Your task to perform on an android device: turn on the 12-hour format for clock Image 0: 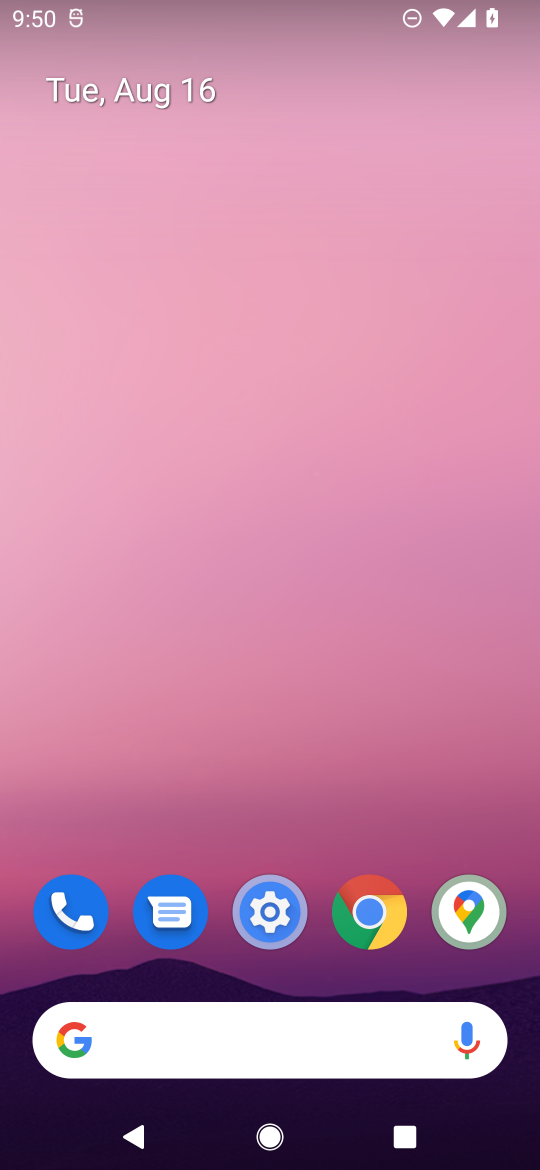
Step 0: drag from (251, 834) to (262, 53)
Your task to perform on an android device: turn on the 12-hour format for clock Image 1: 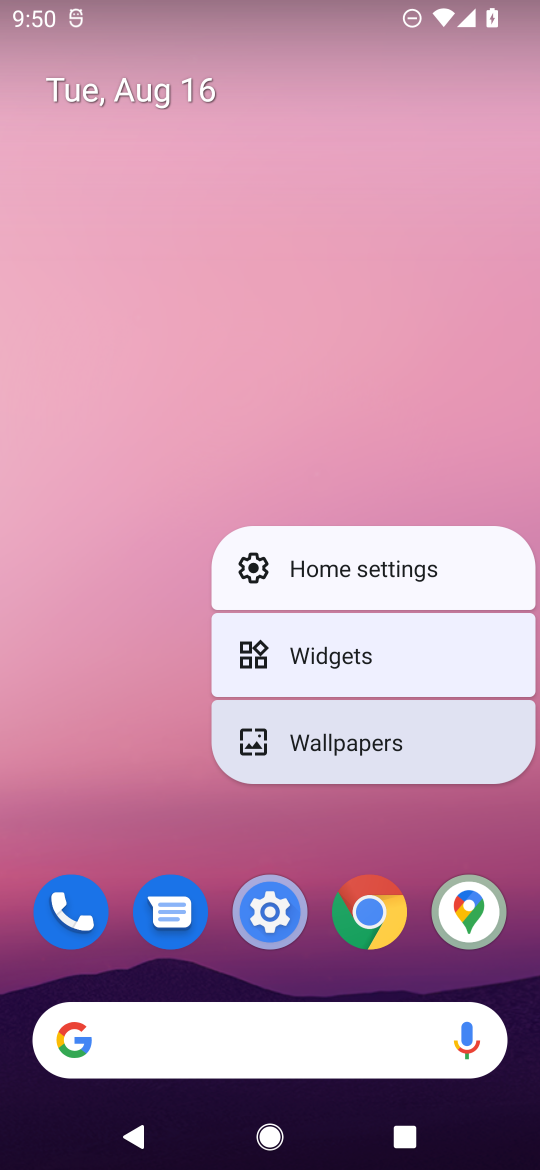
Step 1: drag from (217, 984) to (251, 183)
Your task to perform on an android device: turn on the 12-hour format for clock Image 2: 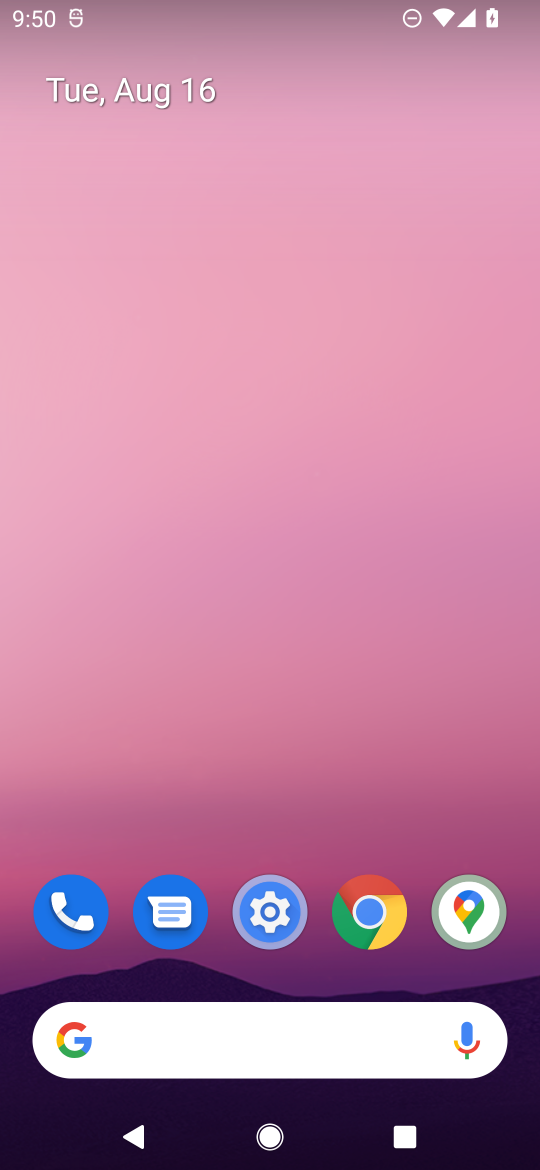
Step 2: drag from (331, 986) to (255, 233)
Your task to perform on an android device: turn on the 12-hour format for clock Image 3: 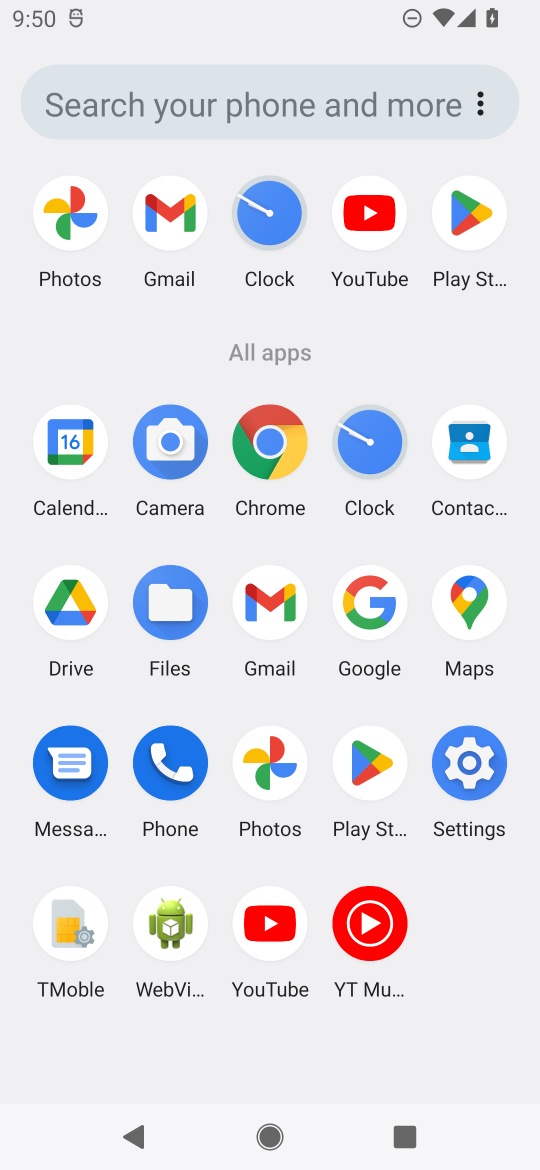
Step 3: click (369, 456)
Your task to perform on an android device: turn on the 12-hour format for clock Image 4: 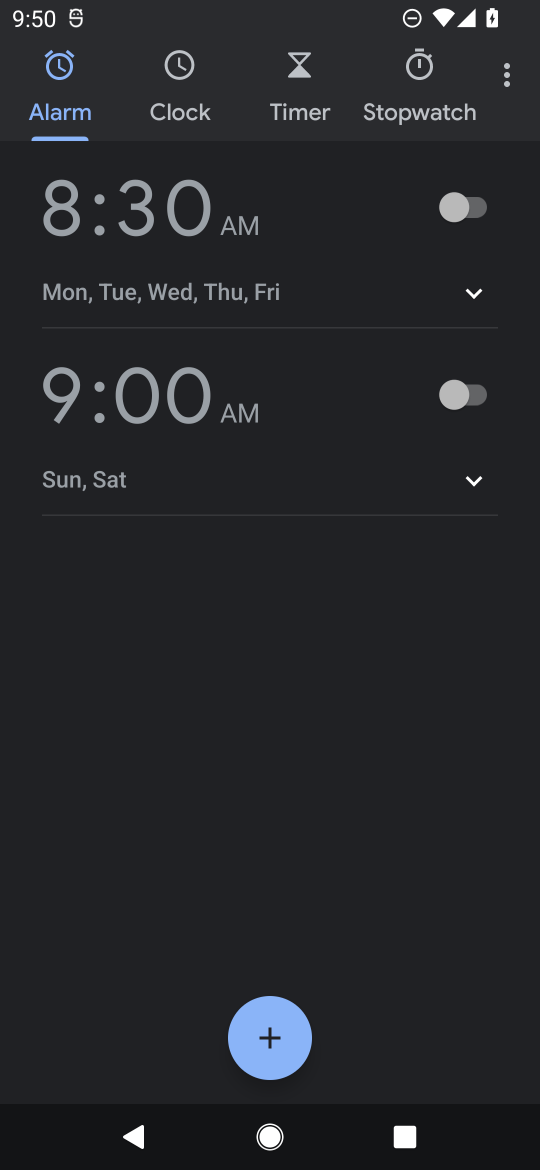
Step 4: click (507, 78)
Your task to perform on an android device: turn on the 12-hour format for clock Image 5: 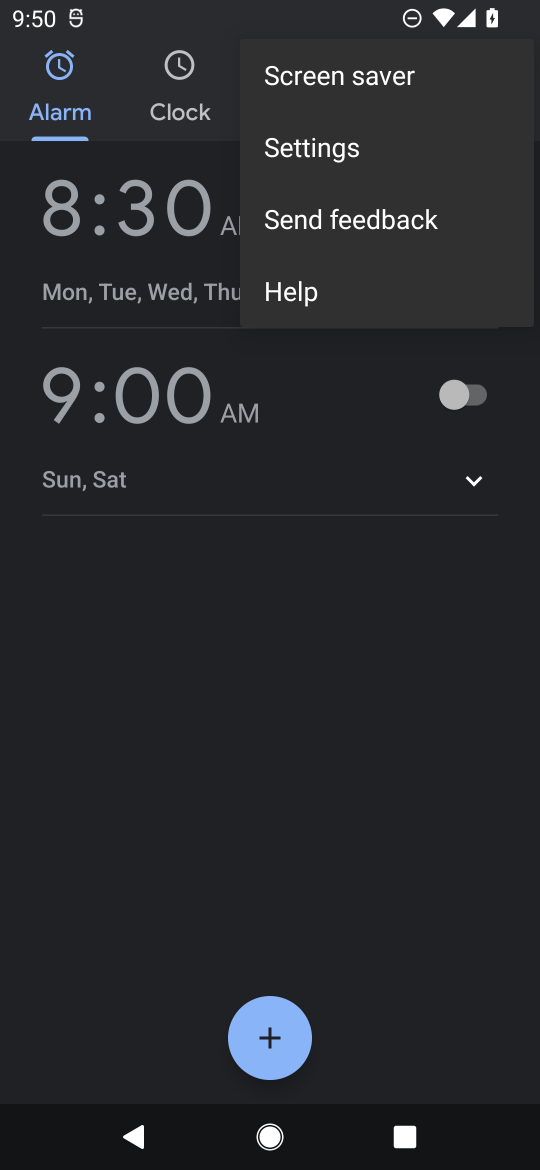
Step 5: click (396, 148)
Your task to perform on an android device: turn on the 12-hour format for clock Image 6: 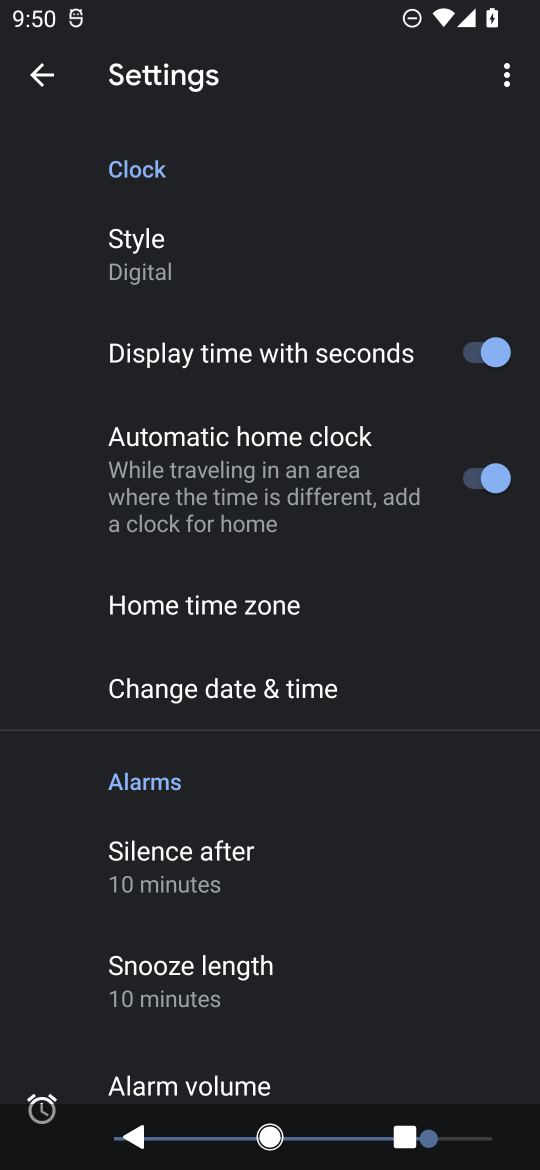
Step 6: click (204, 679)
Your task to perform on an android device: turn on the 12-hour format for clock Image 7: 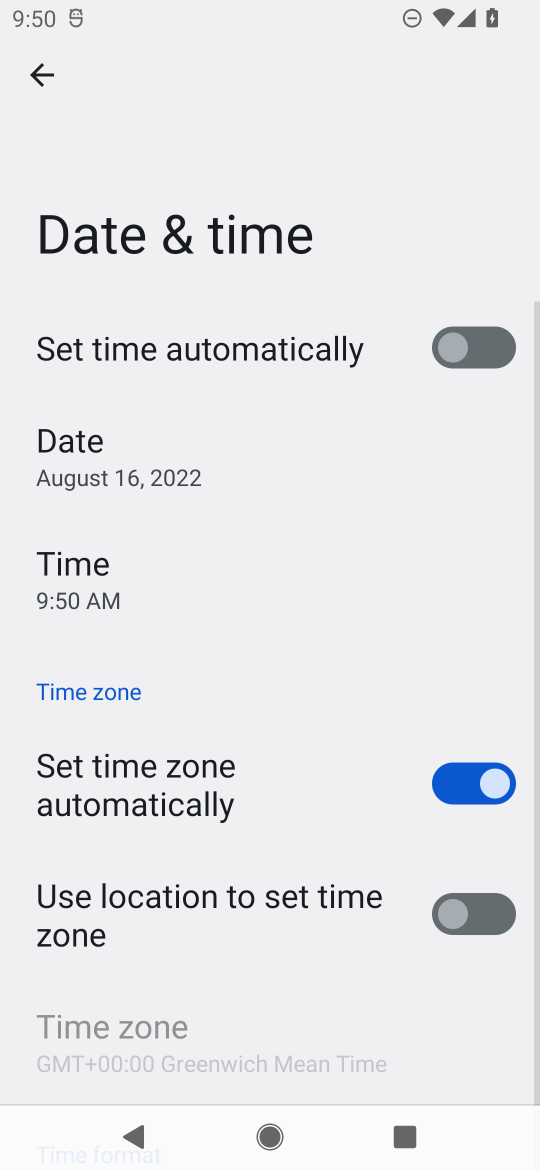
Step 7: task complete